Your task to perform on an android device: install app "Yahoo Mail" Image 0: 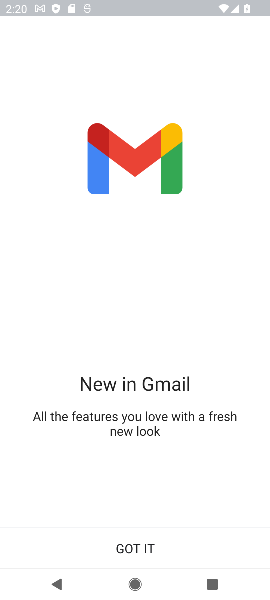
Step 0: press home button
Your task to perform on an android device: install app "Yahoo Mail" Image 1: 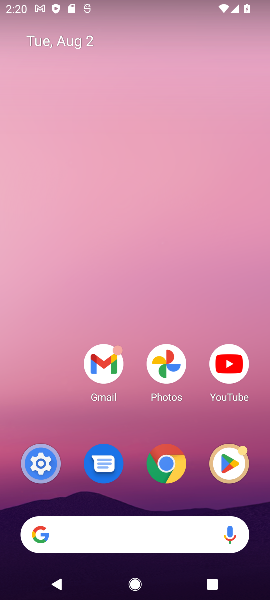
Step 1: click (231, 463)
Your task to perform on an android device: install app "Yahoo Mail" Image 2: 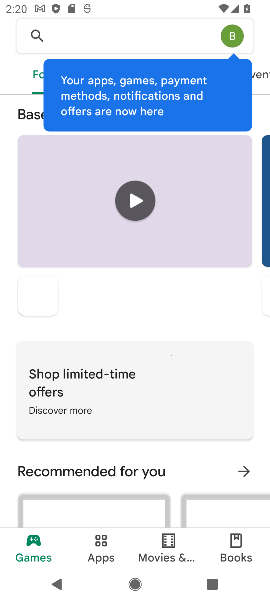
Step 2: click (152, 32)
Your task to perform on an android device: install app "Yahoo Mail" Image 3: 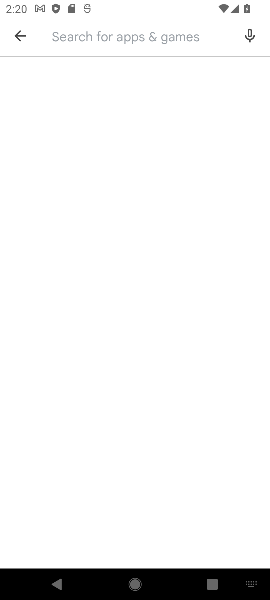
Step 3: type "Yahoo Mail"
Your task to perform on an android device: install app "Yahoo Mail" Image 4: 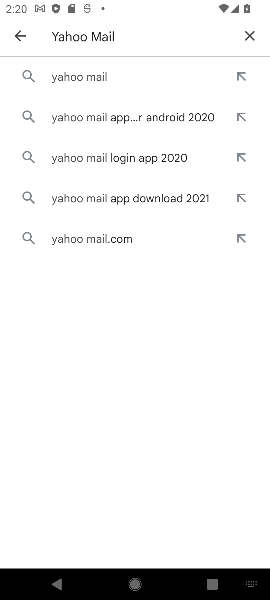
Step 4: click (75, 72)
Your task to perform on an android device: install app "Yahoo Mail" Image 5: 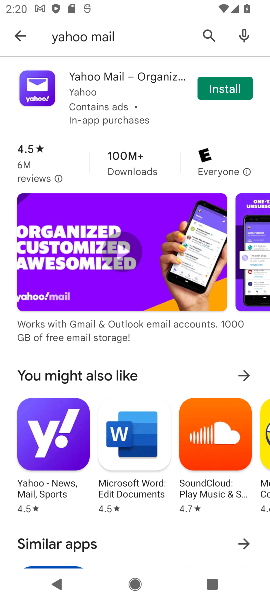
Step 5: click (216, 89)
Your task to perform on an android device: install app "Yahoo Mail" Image 6: 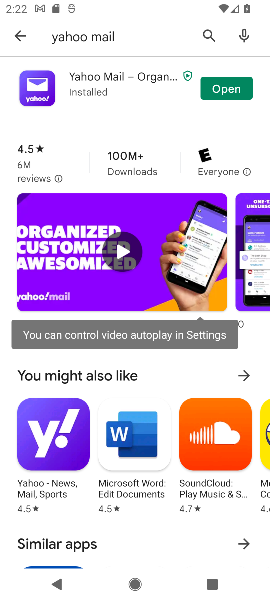
Step 6: task complete